Your task to perform on an android device: star an email in the gmail app Image 0: 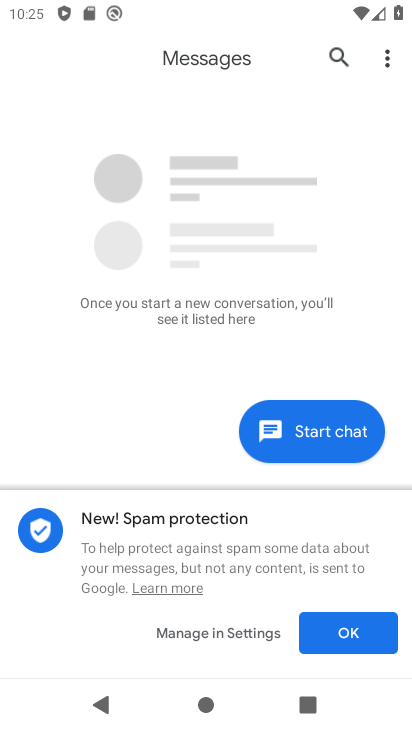
Step 0: press home button
Your task to perform on an android device: star an email in the gmail app Image 1: 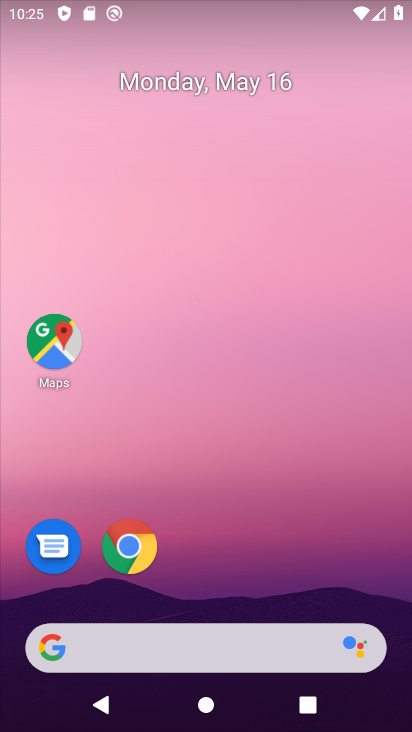
Step 1: drag from (198, 614) to (284, 135)
Your task to perform on an android device: star an email in the gmail app Image 2: 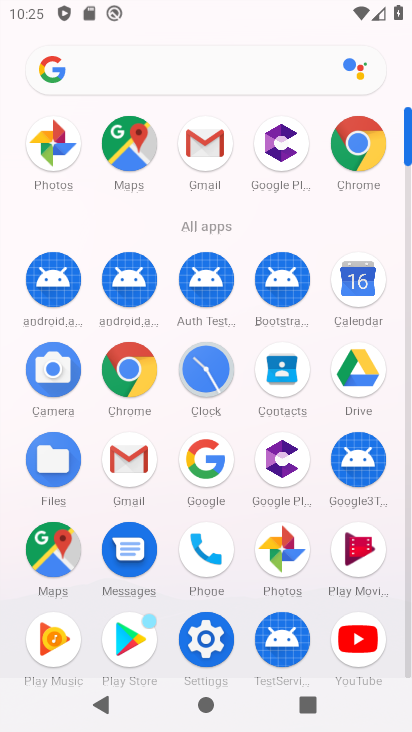
Step 2: click (143, 477)
Your task to perform on an android device: star an email in the gmail app Image 3: 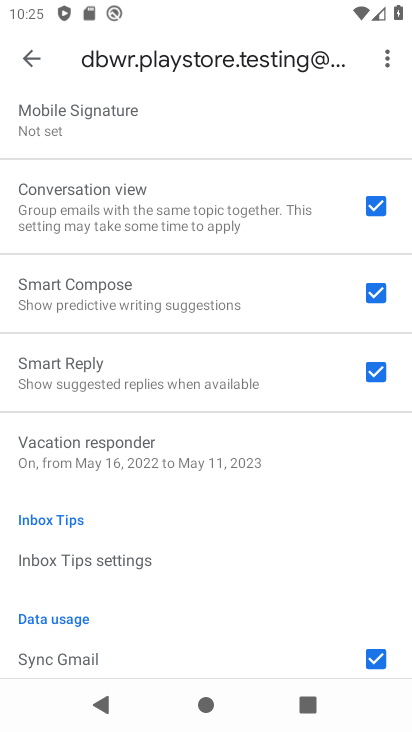
Step 3: click (33, 72)
Your task to perform on an android device: star an email in the gmail app Image 4: 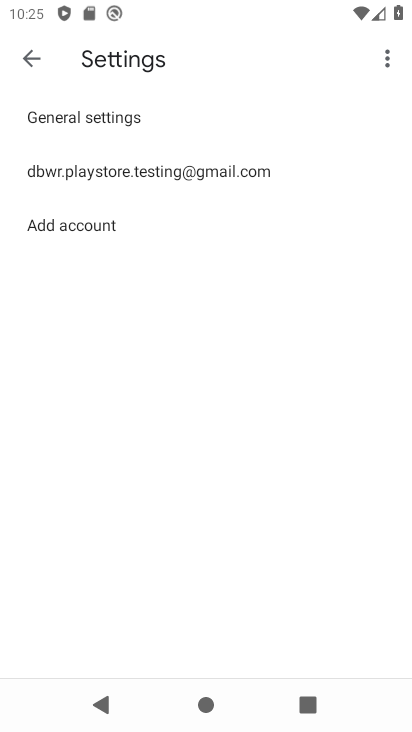
Step 4: click (34, 71)
Your task to perform on an android device: star an email in the gmail app Image 5: 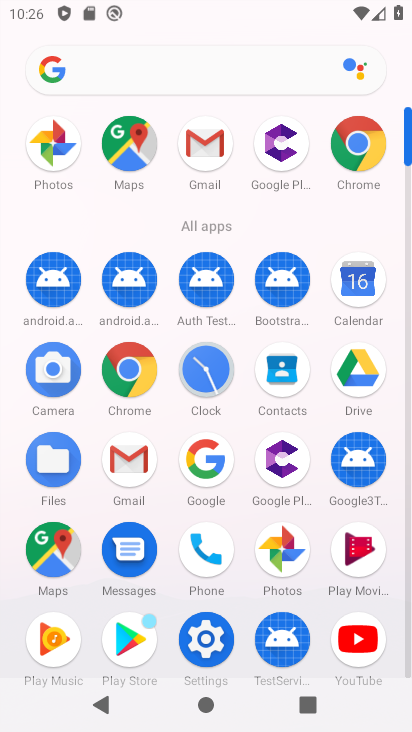
Step 5: click (137, 475)
Your task to perform on an android device: star an email in the gmail app Image 6: 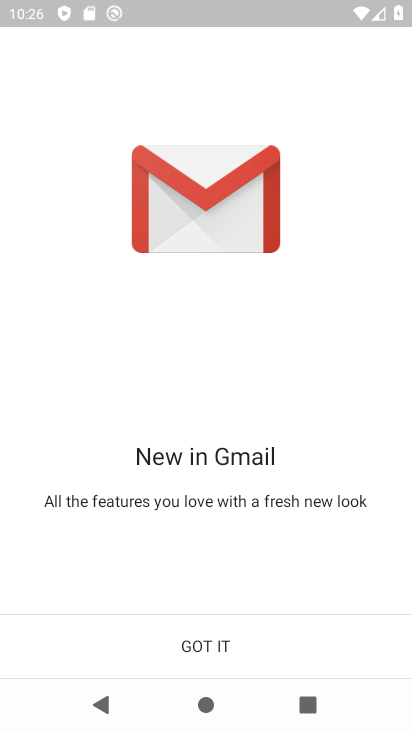
Step 6: click (232, 665)
Your task to perform on an android device: star an email in the gmail app Image 7: 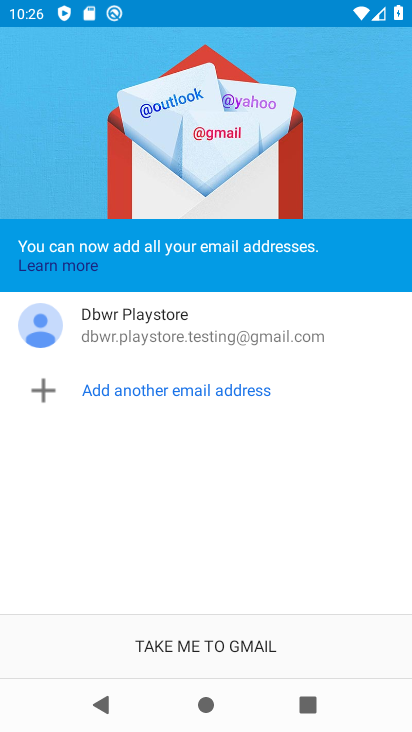
Step 7: click (232, 665)
Your task to perform on an android device: star an email in the gmail app Image 8: 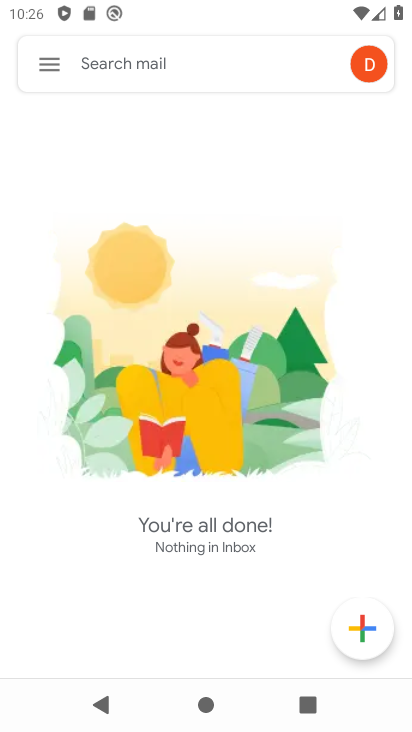
Step 8: click (49, 58)
Your task to perform on an android device: star an email in the gmail app Image 9: 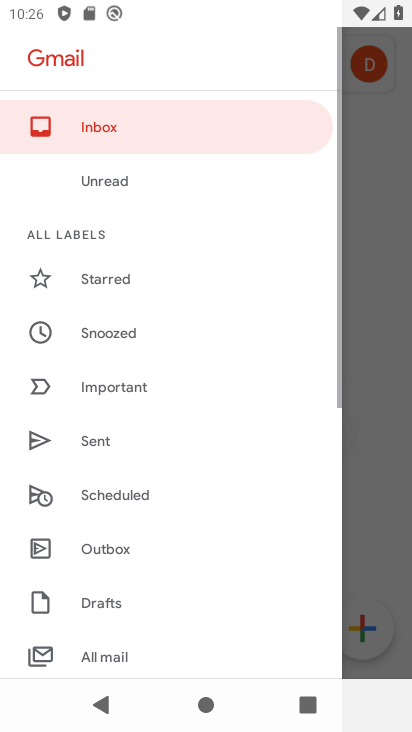
Step 9: drag from (119, 579) to (184, 286)
Your task to perform on an android device: star an email in the gmail app Image 10: 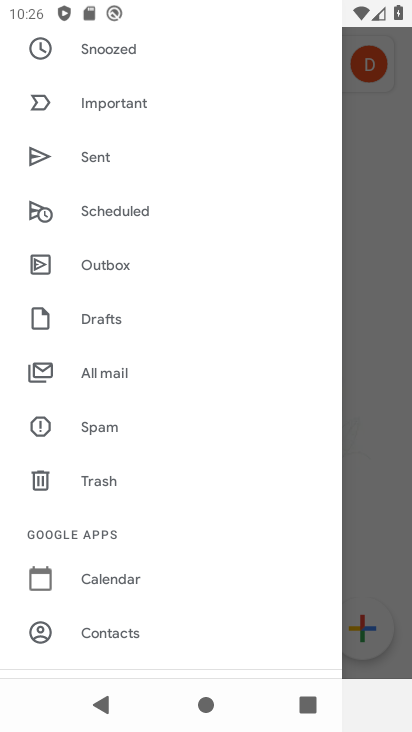
Step 10: click (133, 388)
Your task to perform on an android device: star an email in the gmail app Image 11: 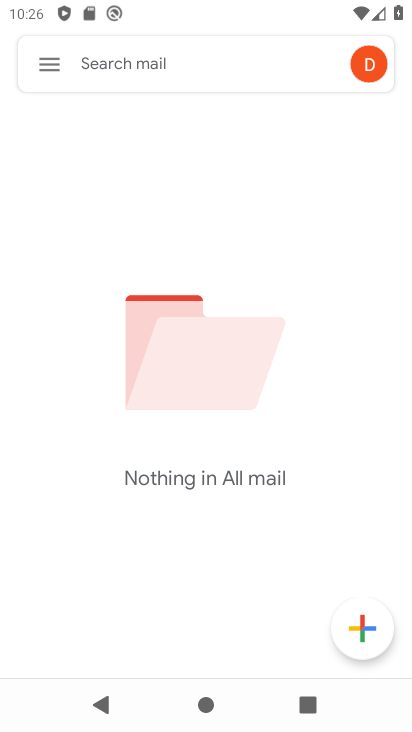
Step 11: task complete